Your task to perform on an android device: check data usage Image 0: 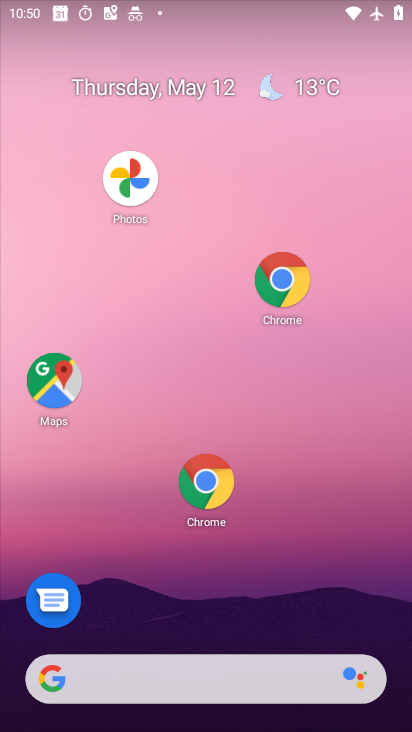
Step 0: drag from (399, 367) to (193, 97)
Your task to perform on an android device: check data usage Image 1: 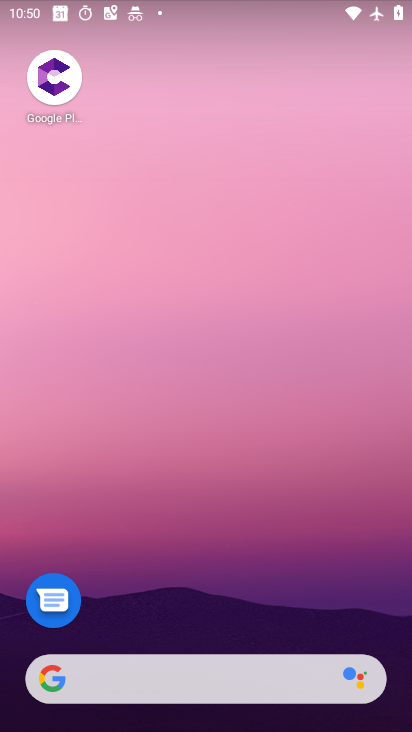
Step 1: drag from (194, 360) to (146, 92)
Your task to perform on an android device: check data usage Image 2: 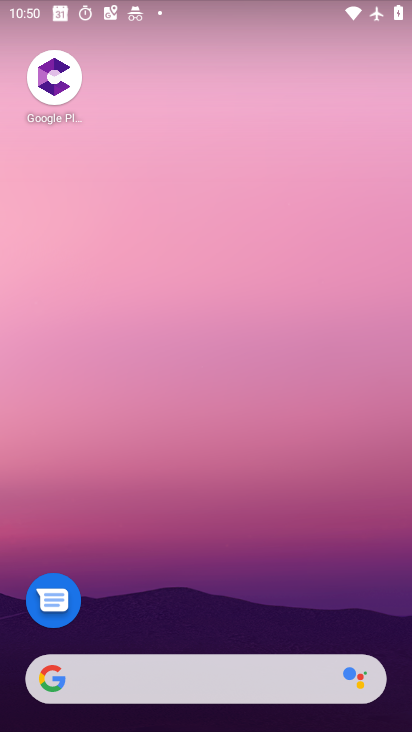
Step 2: drag from (224, 659) to (142, 27)
Your task to perform on an android device: check data usage Image 3: 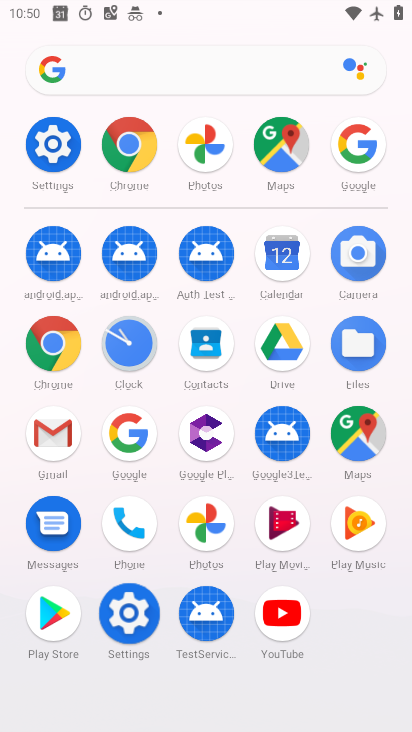
Step 3: drag from (120, 383) to (225, 10)
Your task to perform on an android device: check data usage Image 4: 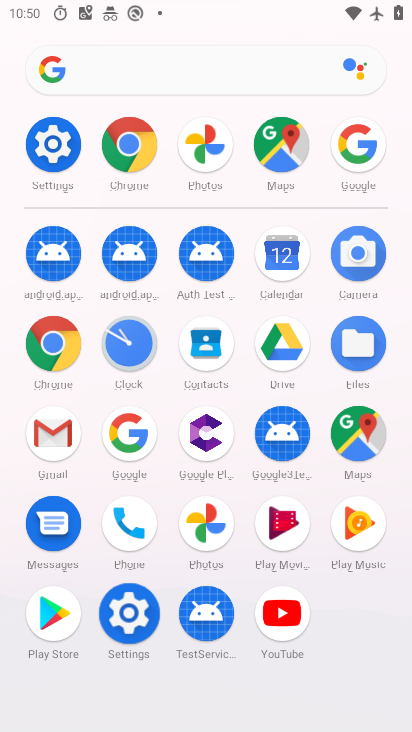
Step 4: click (45, 142)
Your task to perform on an android device: check data usage Image 5: 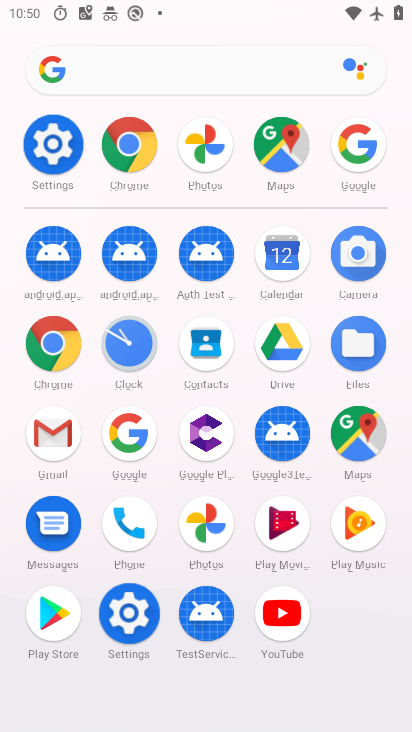
Step 5: click (56, 144)
Your task to perform on an android device: check data usage Image 6: 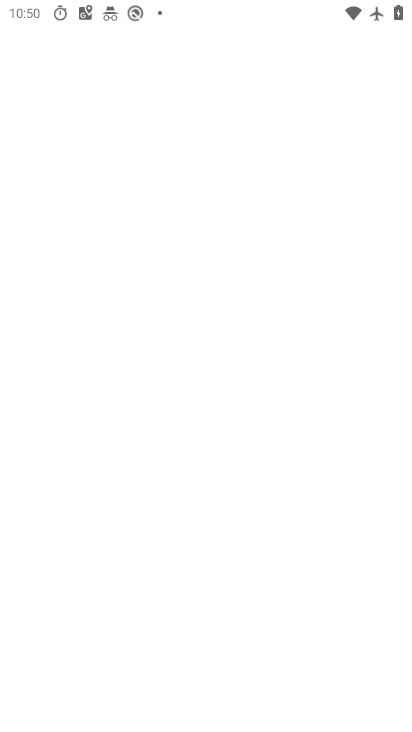
Step 6: click (65, 150)
Your task to perform on an android device: check data usage Image 7: 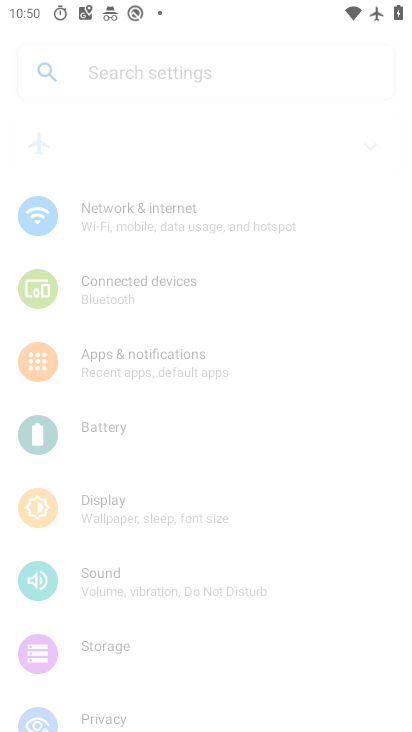
Step 7: click (65, 150)
Your task to perform on an android device: check data usage Image 8: 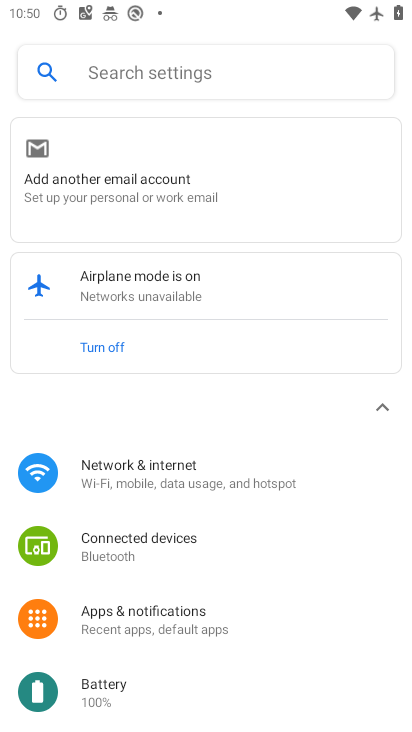
Step 8: drag from (193, 545) to (186, 222)
Your task to perform on an android device: check data usage Image 9: 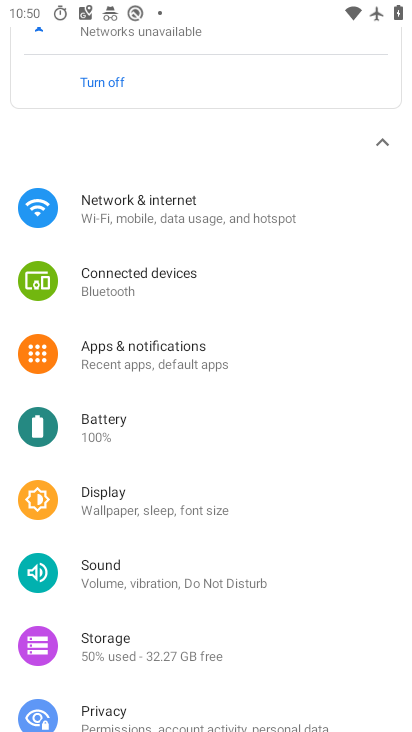
Step 9: drag from (216, 444) to (200, 113)
Your task to perform on an android device: check data usage Image 10: 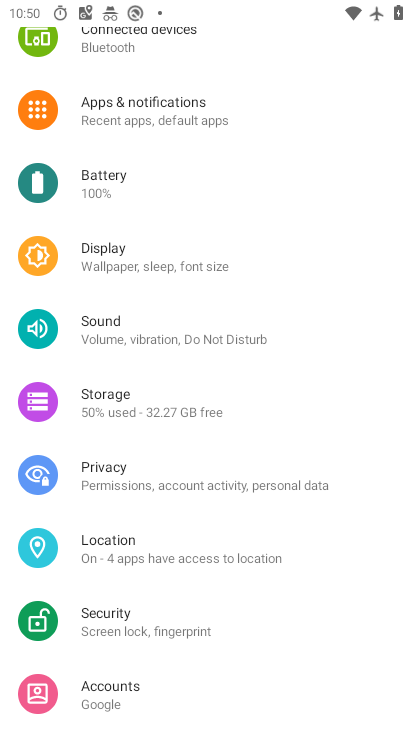
Step 10: click (169, 353)
Your task to perform on an android device: check data usage Image 11: 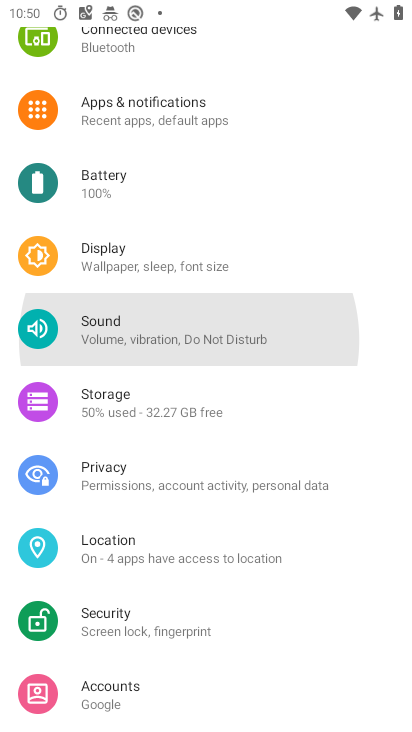
Step 11: drag from (183, 305) to (310, 17)
Your task to perform on an android device: check data usage Image 12: 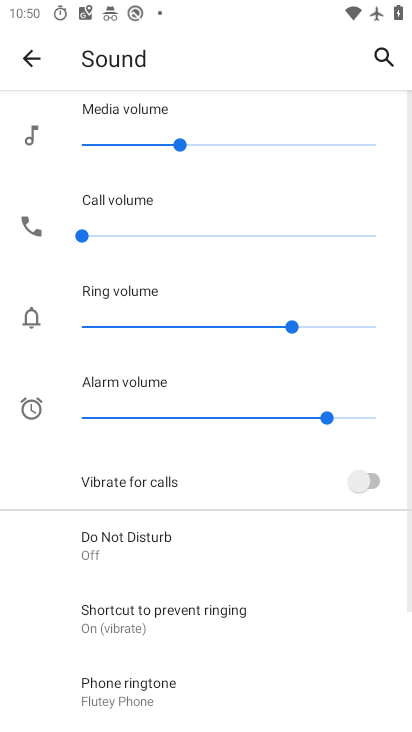
Step 12: click (31, 68)
Your task to perform on an android device: check data usage Image 13: 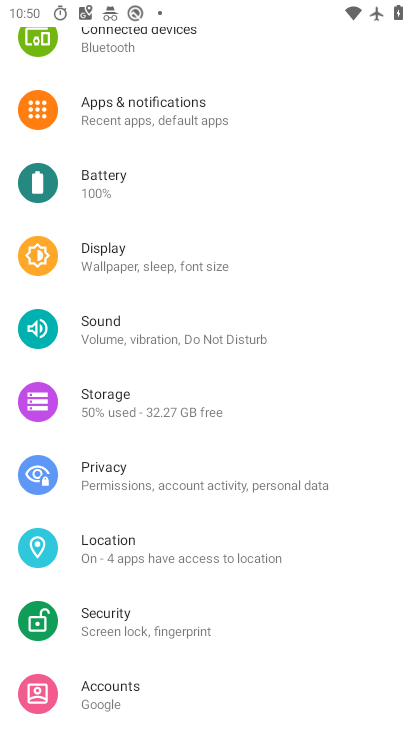
Step 13: drag from (150, 243) to (164, 476)
Your task to perform on an android device: check data usage Image 14: 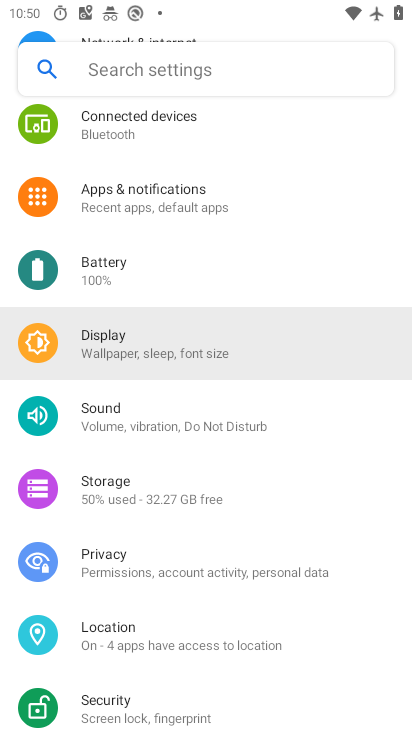
Step 14: drag from (197, 253) to (236, 549)
Your task to perform on an android device: check data usage Image 15: 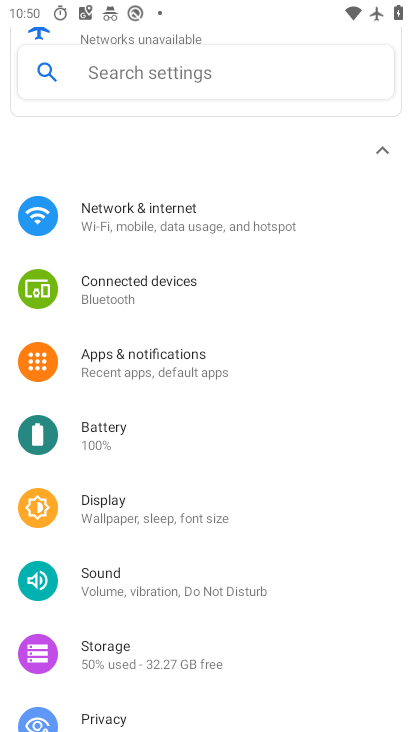
Step 15: drag from (201, 197) to (218, 486)
Your task to perform on an android device: check data usage Image 16: 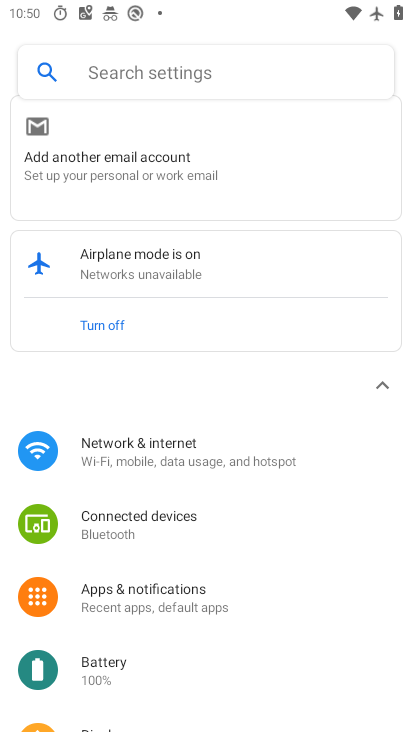
Step 16: drag from (198, 172) to (244, 503)
Your task to perform on an android device: check data usage Image 17: 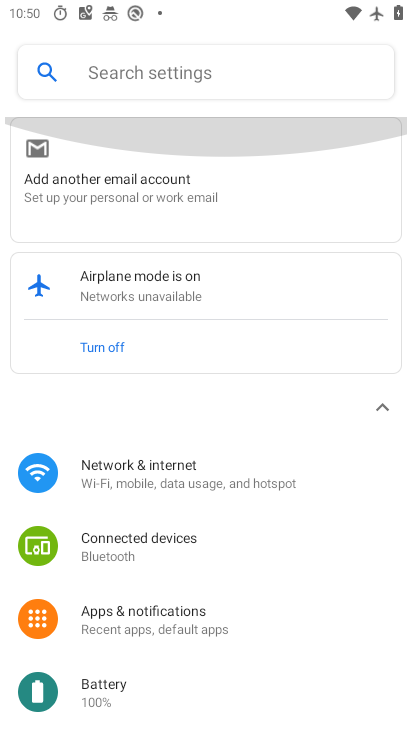
Step 17: drag from (174, 248) to (208, 533)
Your task to perform on an android device: check data usage Image 18: 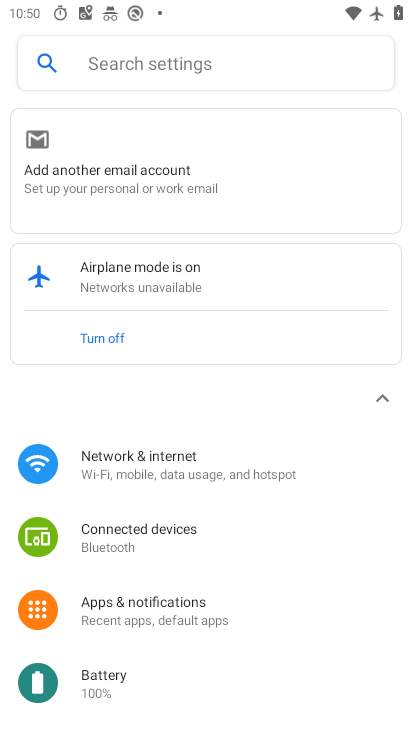
Step 18: click (165, 468)
Your task to perform on an android device: check data usage Image 19: 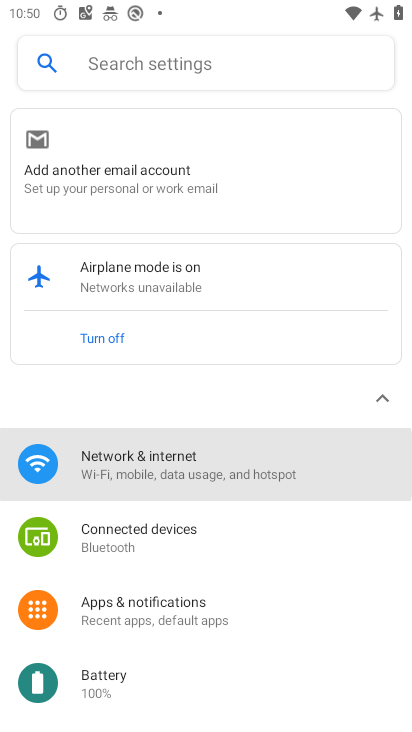
Step 19: click (165, 466)
Your task to perform on an android device: check data usage Image 20: 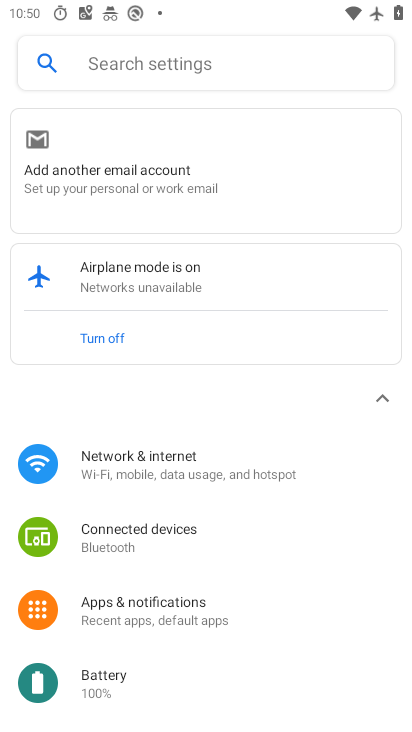
Step 20: click (165, 465)
Your task to perform on an android device: check data usage Image 21: 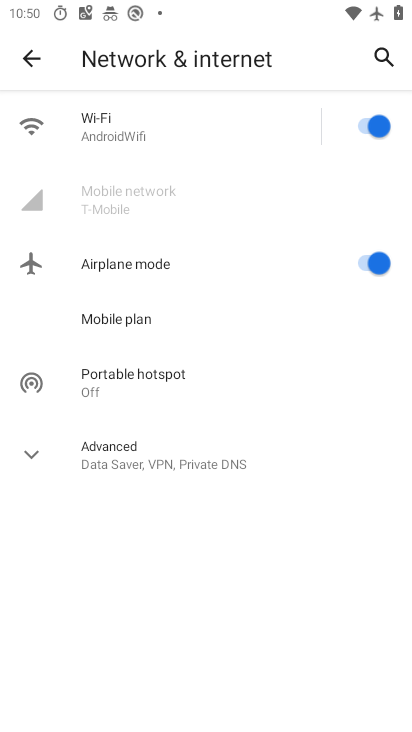
Step 21: task complete